Your task to perform on an android device: change alarm snooze length Image 0: 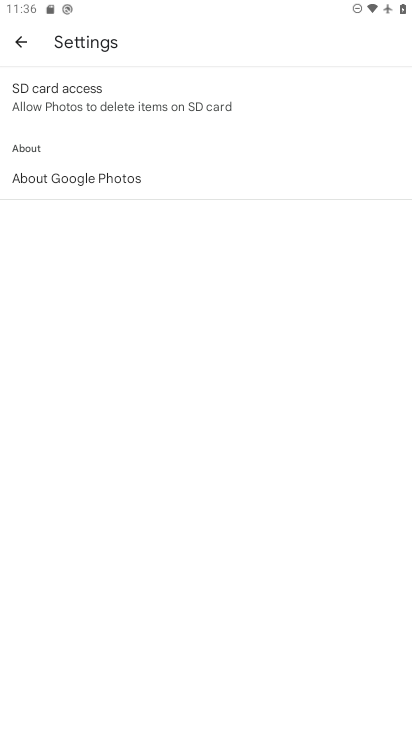
Step 0: press home button
Your task to perform on an android device: change alarm snooze length Image 1: 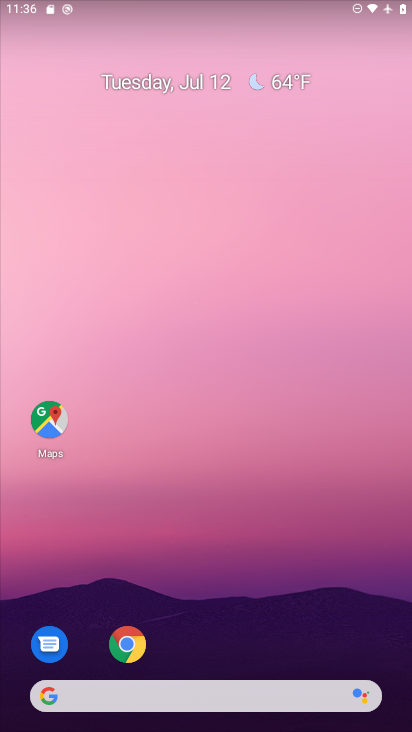
Step 1: drag from (279, 666) to (256, 227)
Your task to perform on an android device: change alarm snooze length Image 2: 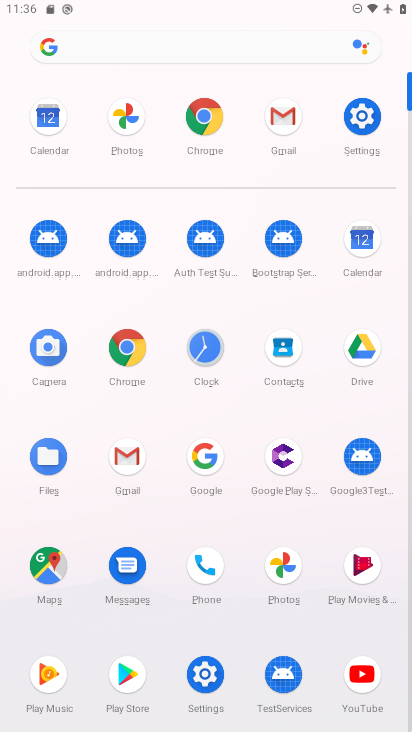
Step 2: click (210, 347)
Your task to perform on an android device: change alarm snooze length Image 3: 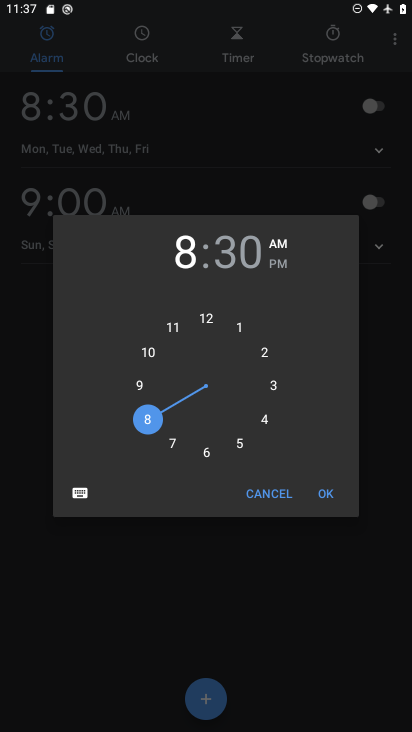
Step 3: click (321, 482)
Your task to perform on an android device: change alarm snooze length Image 4: 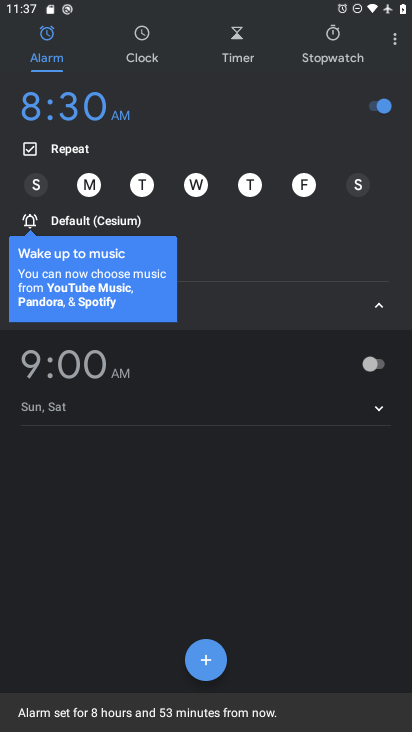
Step 4: click (402, 50)
Your task to perform on an android device: change alarm snooze length Image 5: 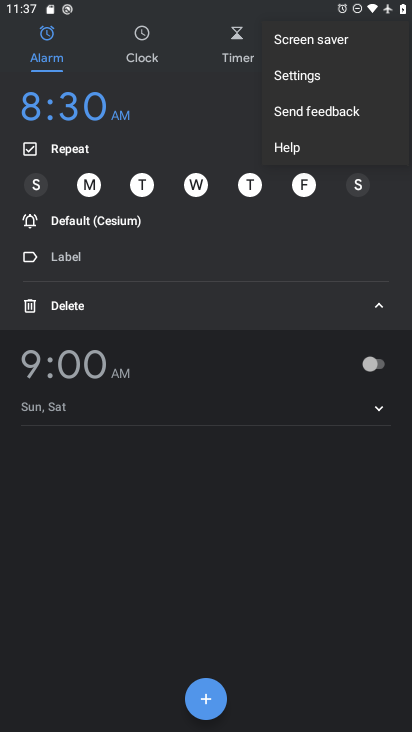
Step 5: click (309, 76)
Your task to perform on an android device: change alarm snooze length Image 6: 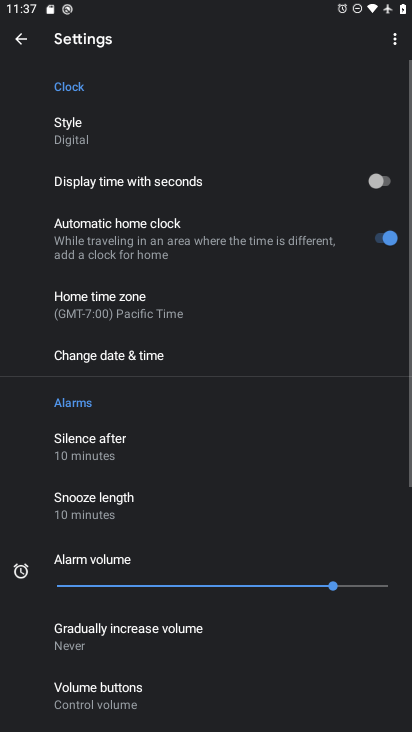
Step 6: click (152, 490)
Your task to perform on an android device: change alarm snooze length Image 7: 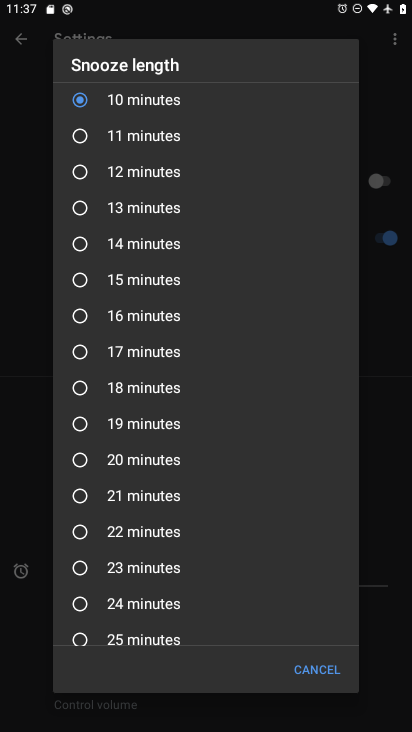
Step 7: task complete